Your task to perform on an android device: open app "DuckDuckGo Privacy Browser" Image 0: 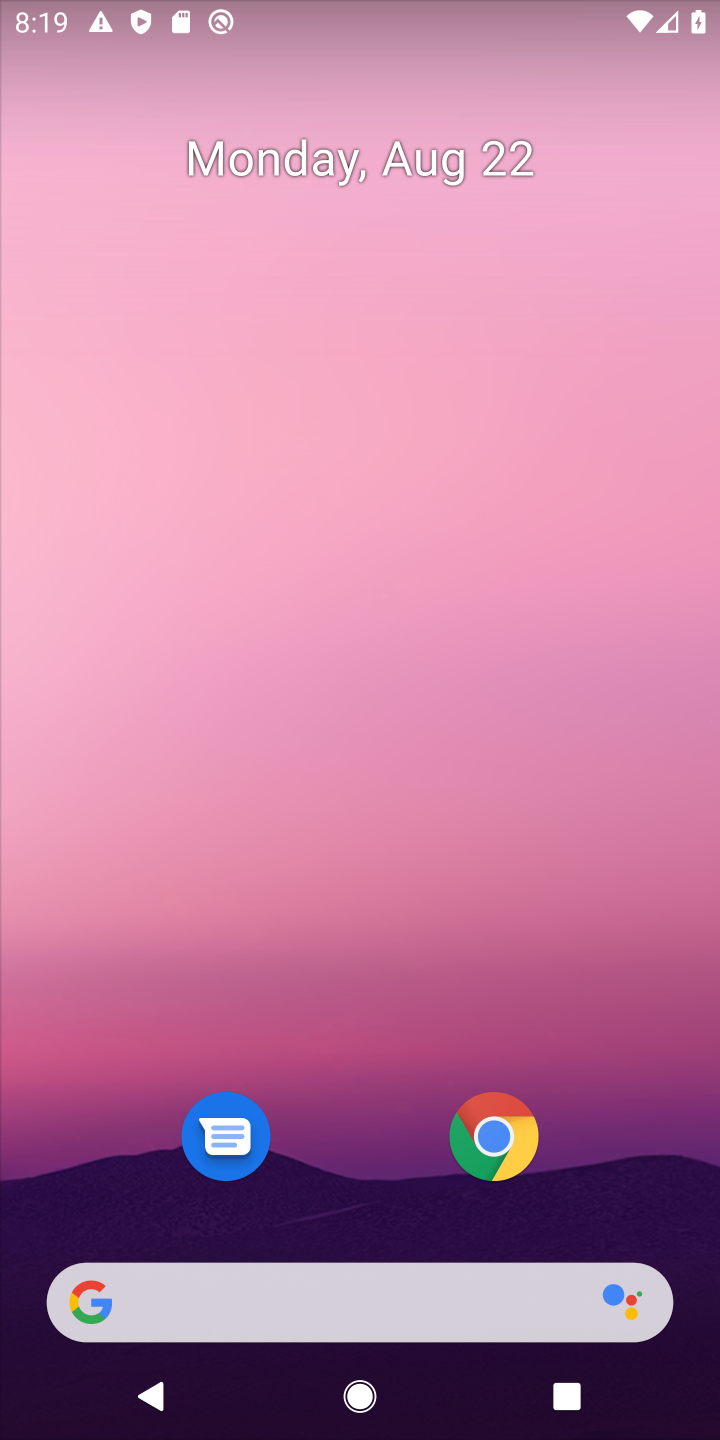
Step 0: drag from (381, 827) to (390, 201)
Your task to perform on an android device: open app "DuckDuckGo Privacy Browser" Image 1: 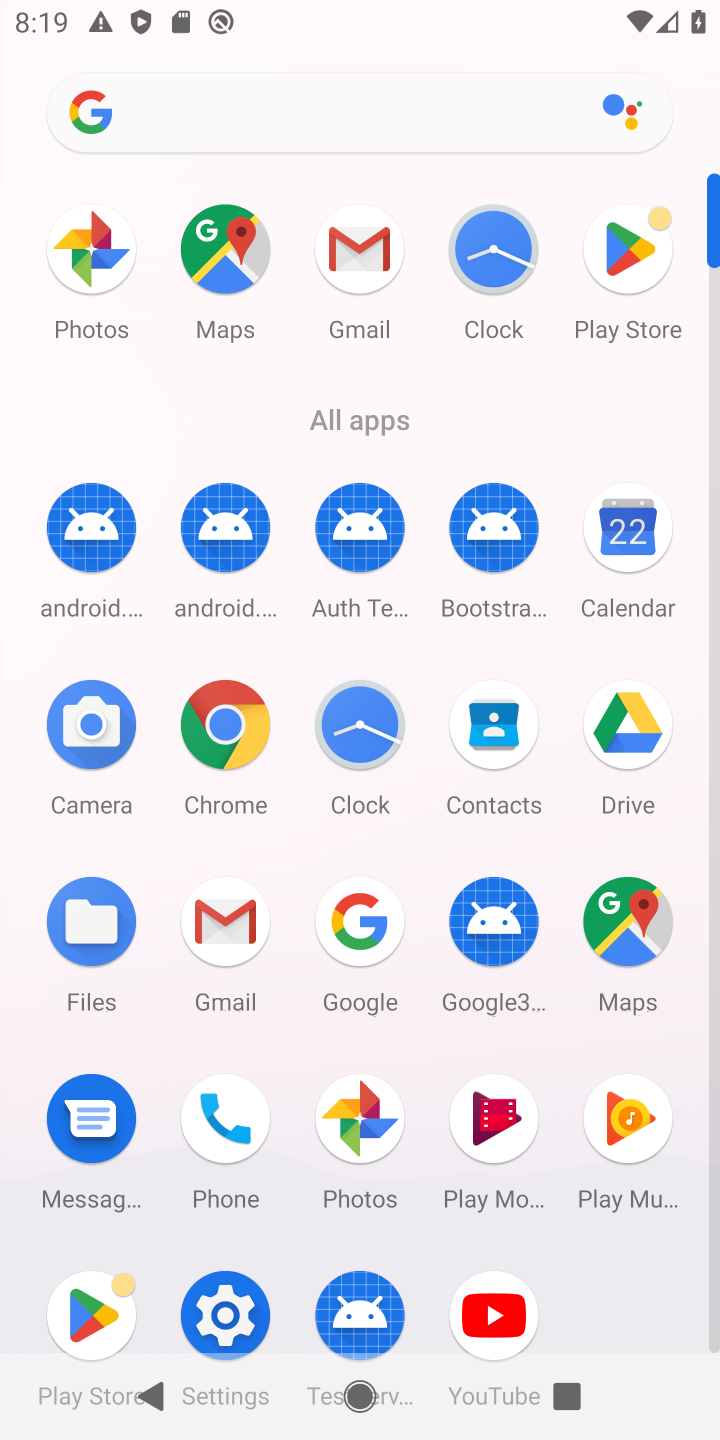
Step 1: click (627, 229)
Your task to perform on an android device: open app "DuckDuckGo Privacy Browser" Image 2: 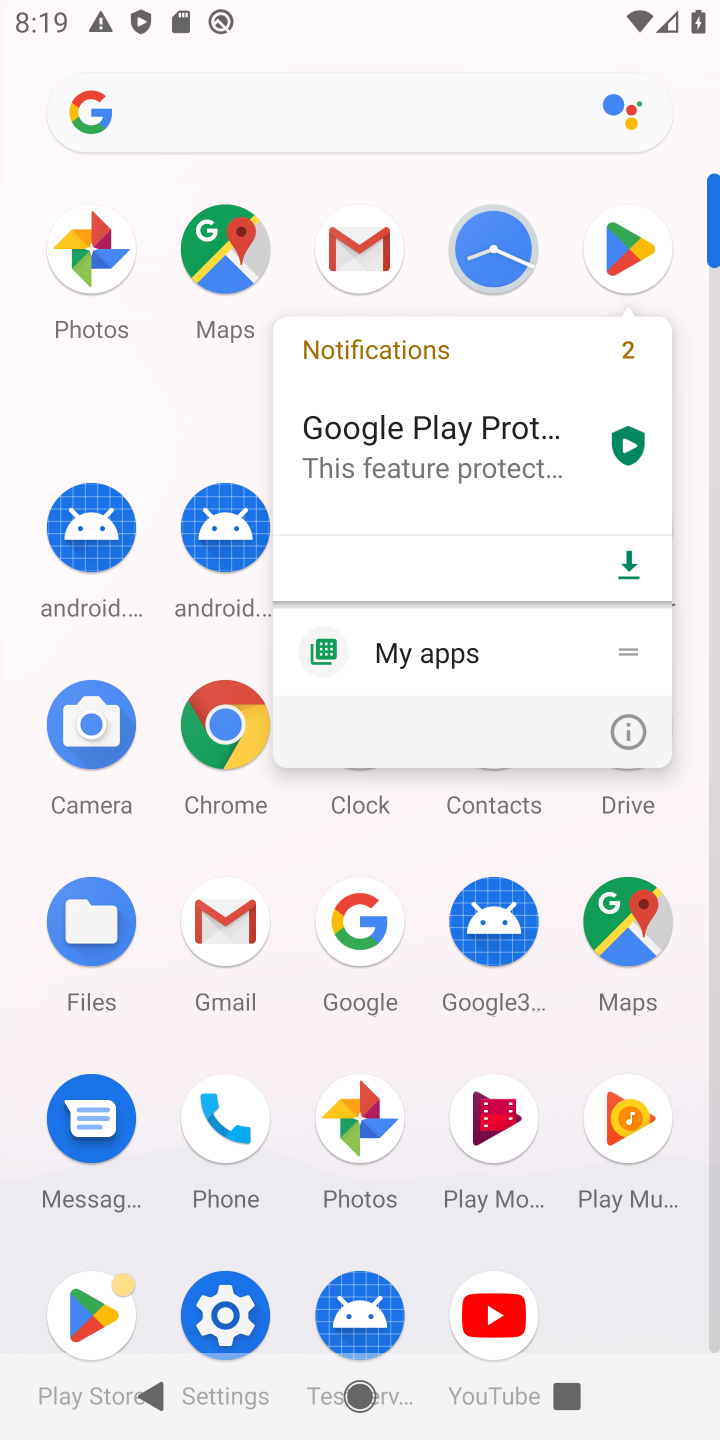
Step 2: click (609, 244)
Your task to perform on an android device: open app "DuckDuckGo Privacy Browser" Image 3: 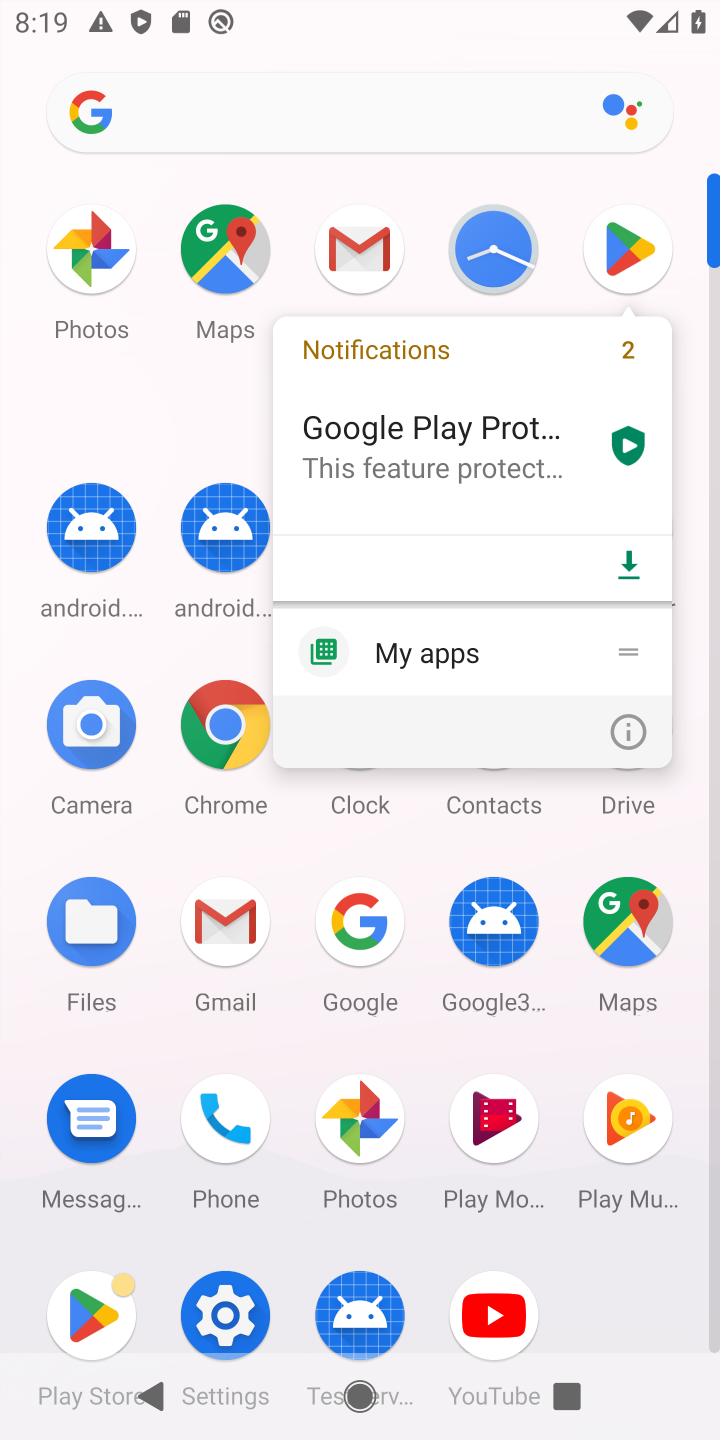
Step 3: click (644, 256)
Your task to perform on an android device: open app "DuckDuckGo Privacy Browser" Image 4: 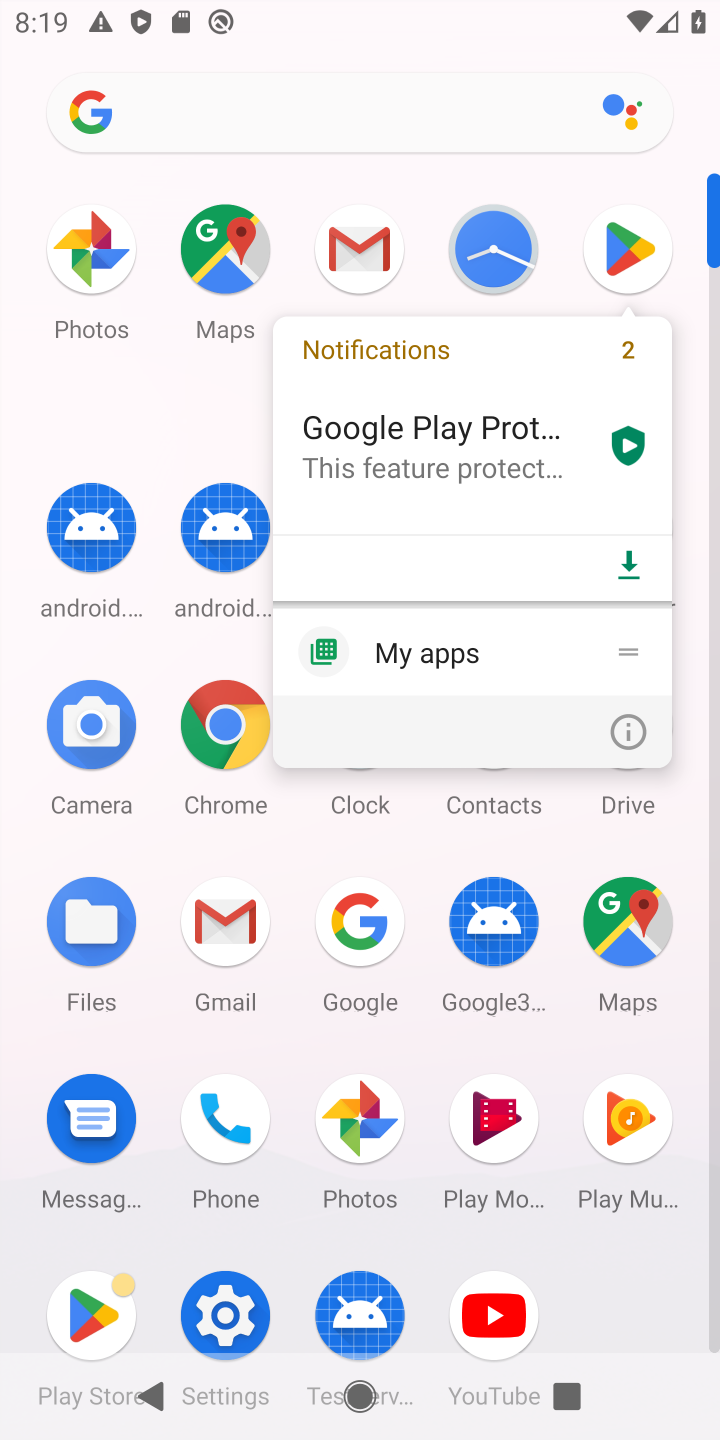
Step 4: click (637, 256)
Your task to perform on an android device: open app "DuckDuckGo Privacy Browser" Image 5: 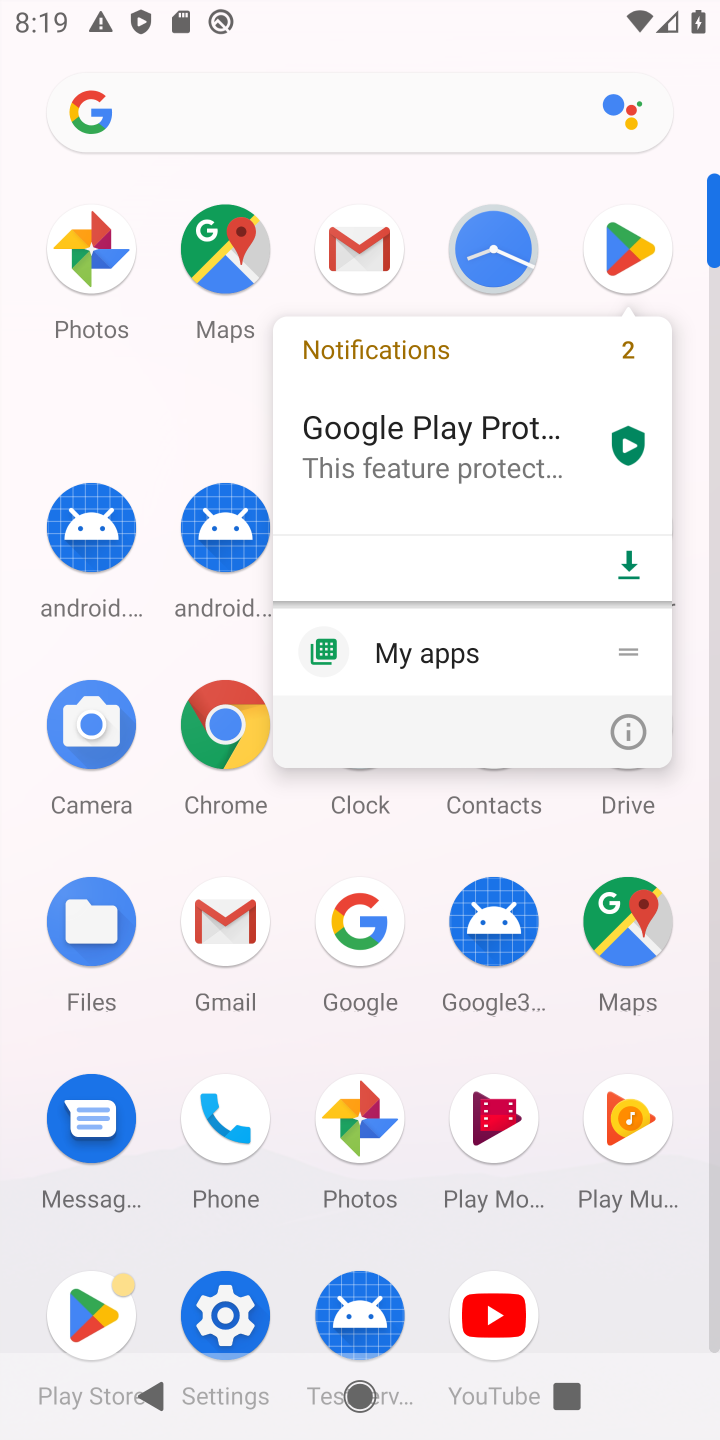
Step 5: click (637, 256)
Your task to perform on an android device: open app "DuckDuckGo Privacy Browser" Image 6: 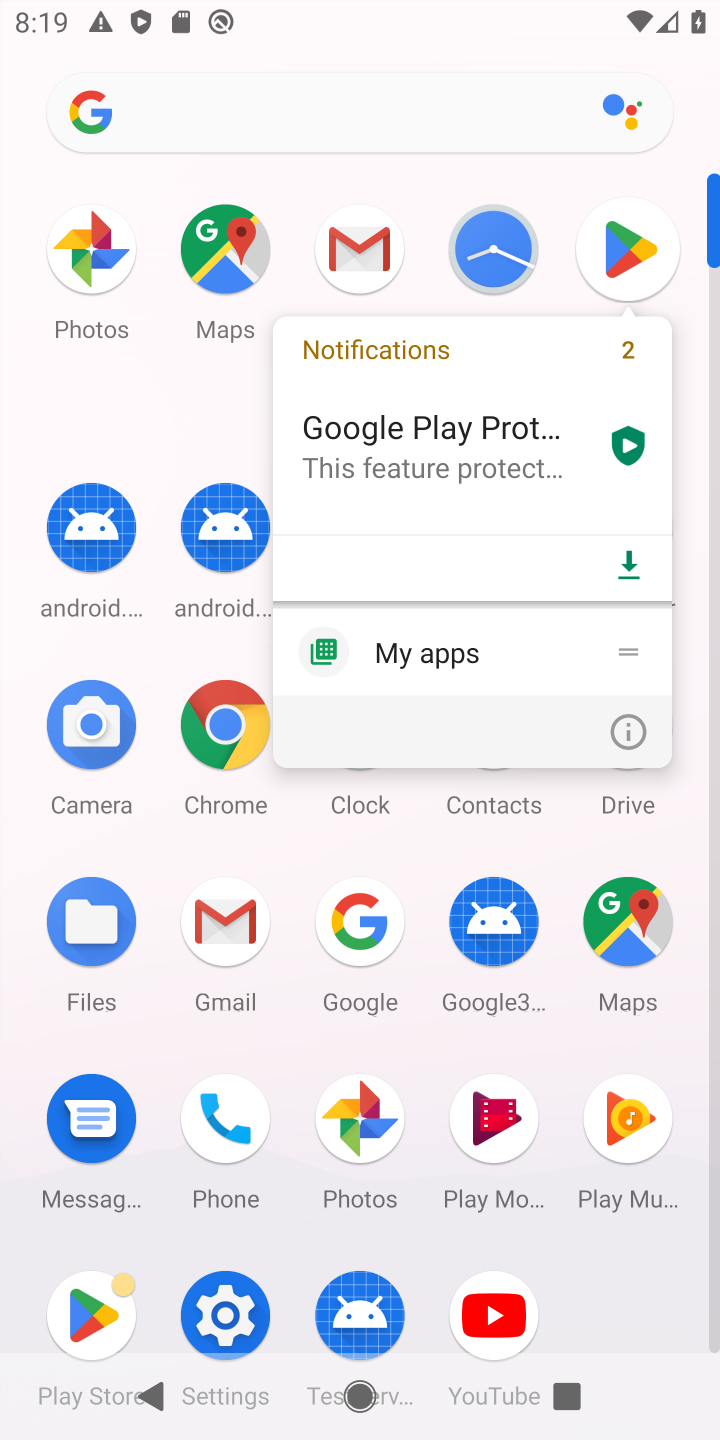
Step 6: click (637, 256)
Your task to perform on an android device: open app "DuckDuckGo Privacy Browser" Image 7: 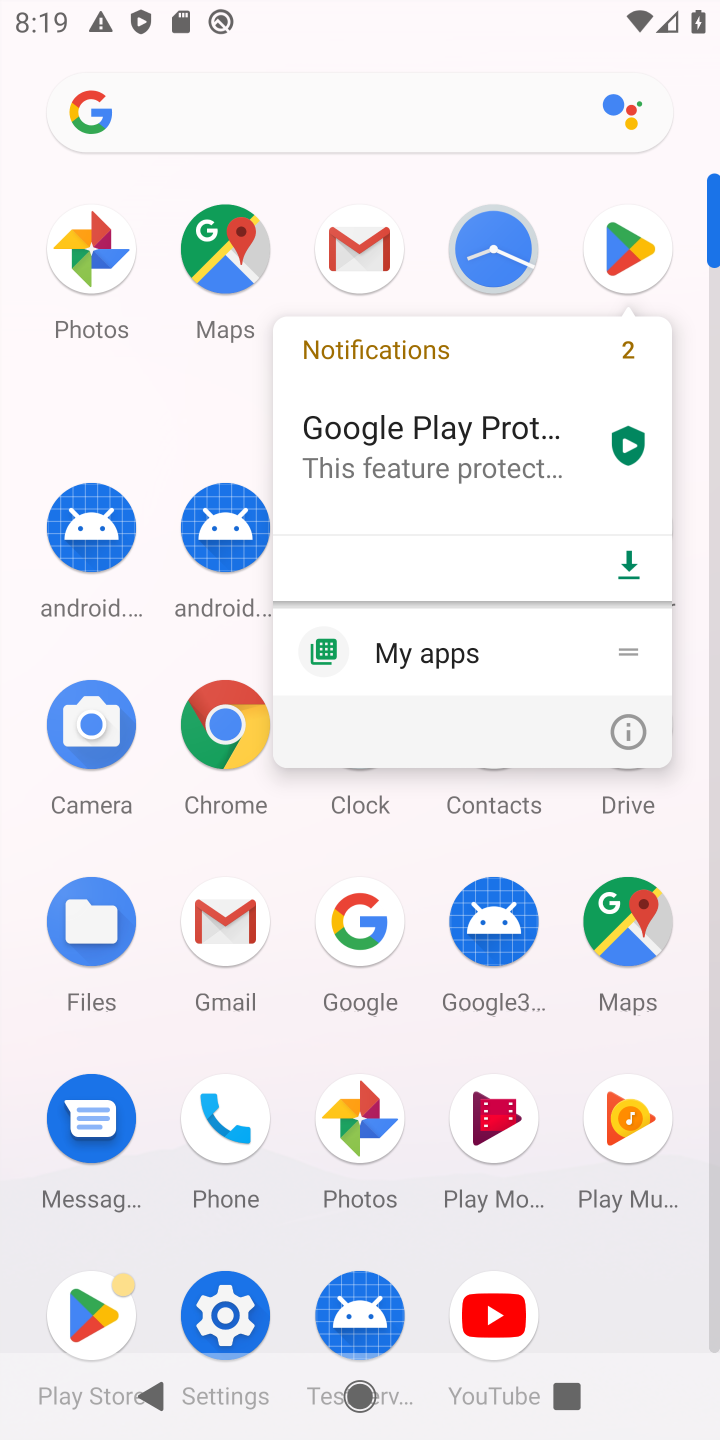
Step 7: click (610, 258)
Your task to perform on an android device: open app "DuckDuckGo Privacy Browser" Image 8: 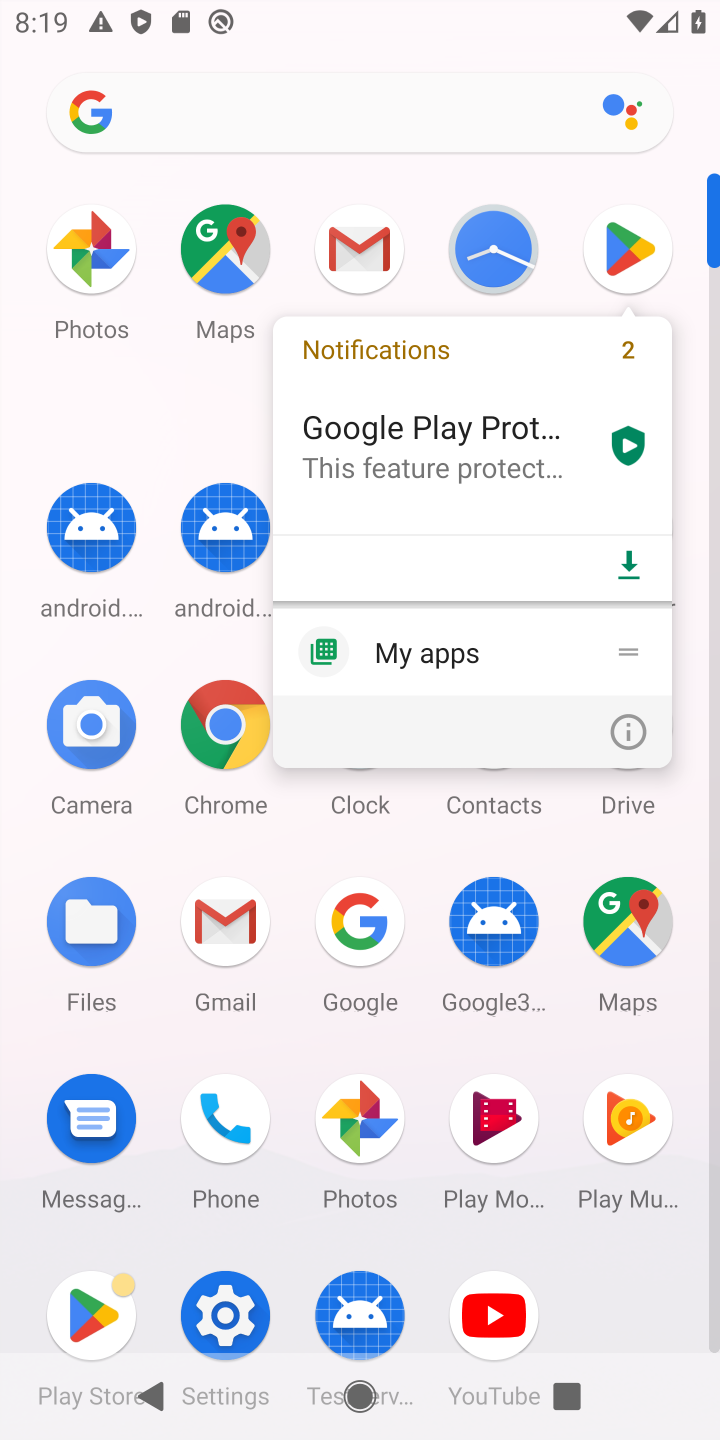
Step 8: click (610, 258)
Your task to perform on an android device: open app "DuckDuckGo Privacy Browser" Image 9: 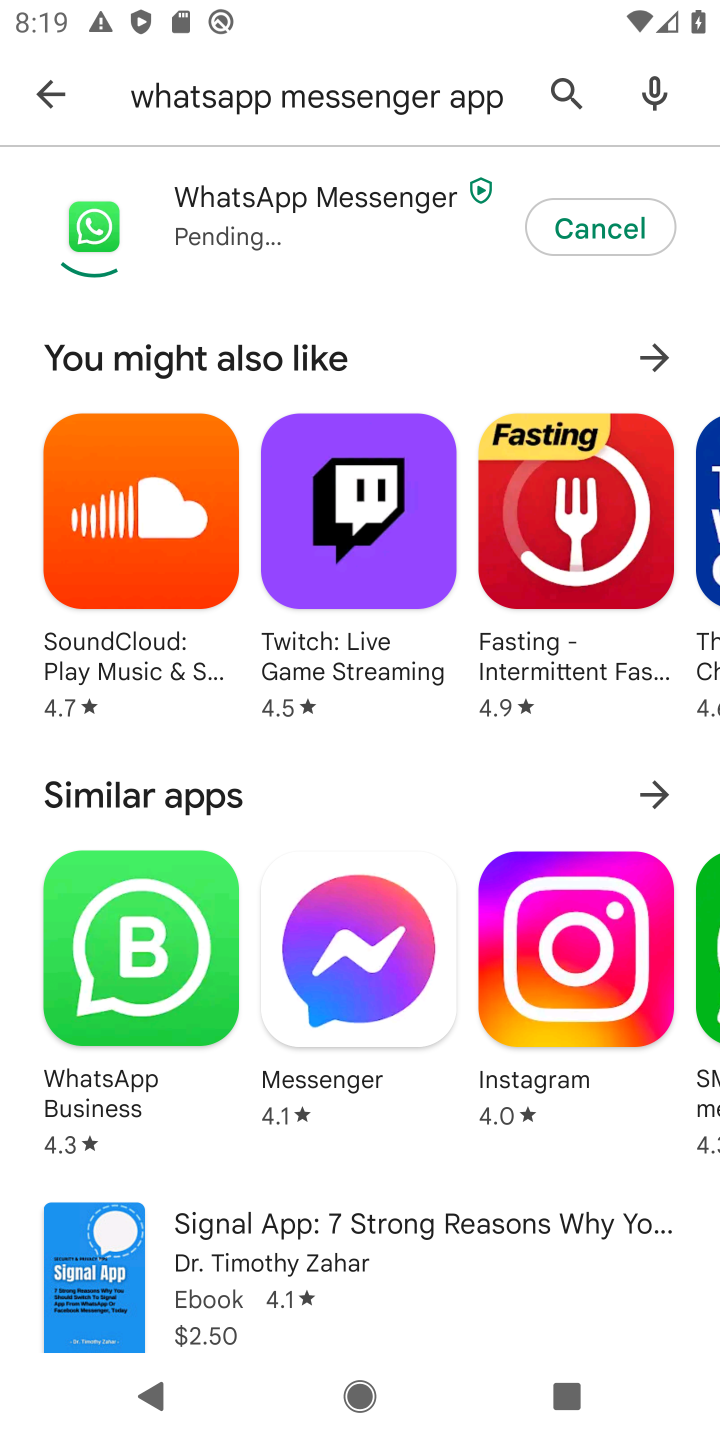
Step 9: click (79, 1309)
Your task to perform on an android device: open app "DuckDuckGo Privacy Browser" Image 10: 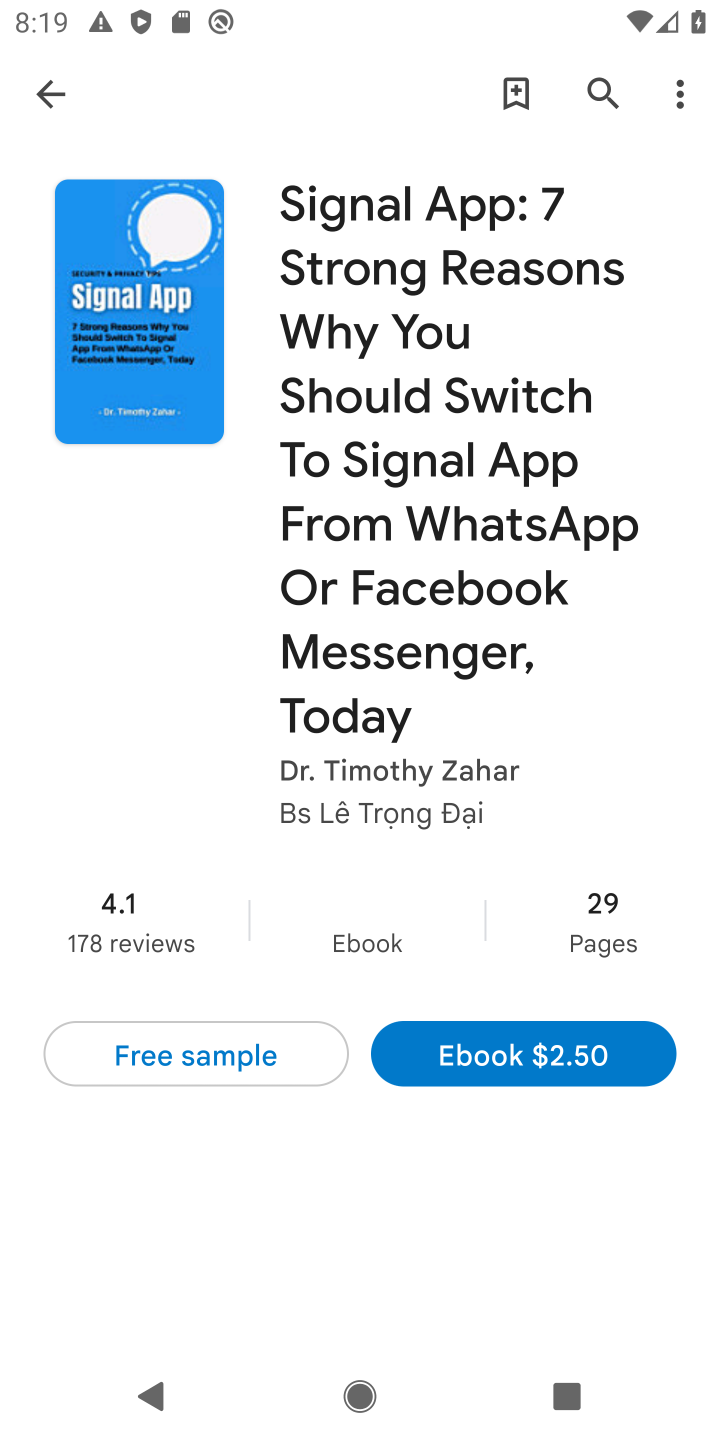
Step 10: press back button
Your task to perform on an android device: open app "DuckDuckGo Privacy Browser" Image 11: 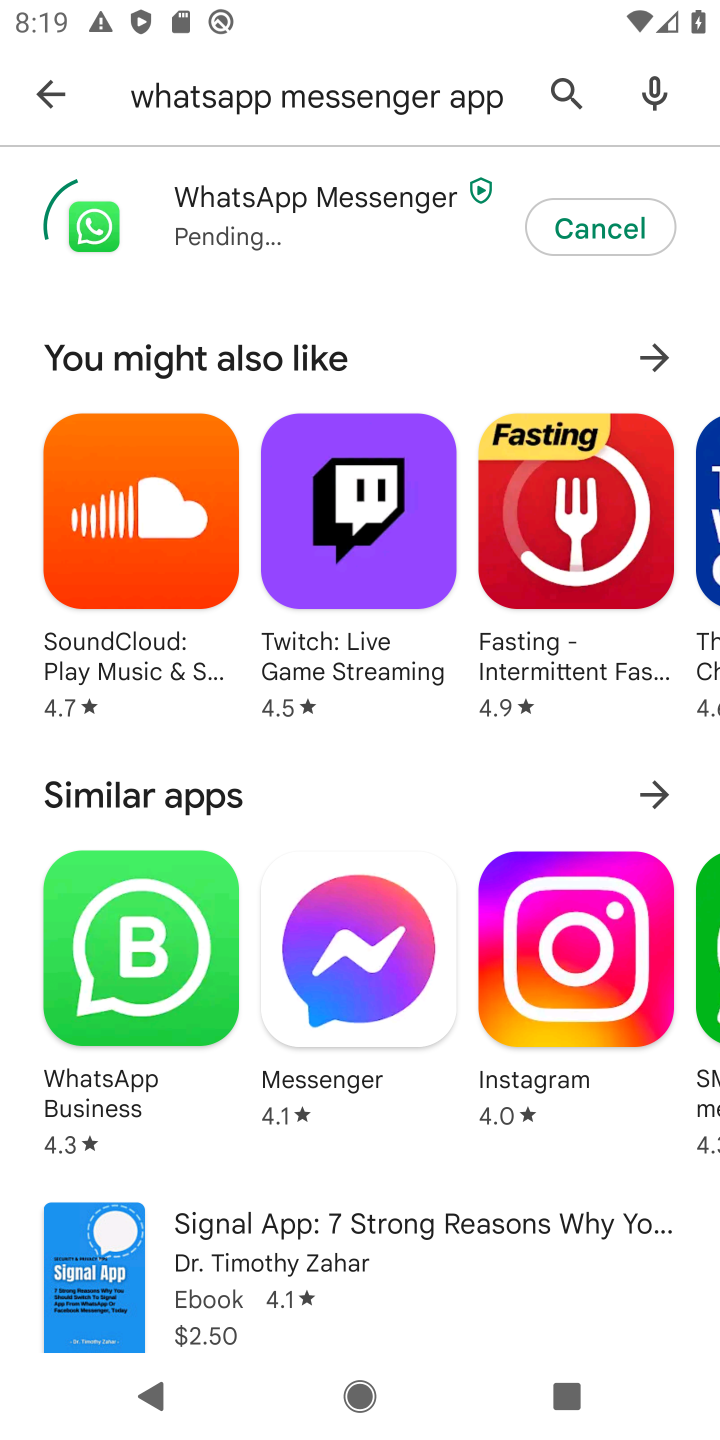
Step 11: click (41, 96)
Your task to perform on an android device: open app "DuckDuckGo Privacy Browser" Image 12: 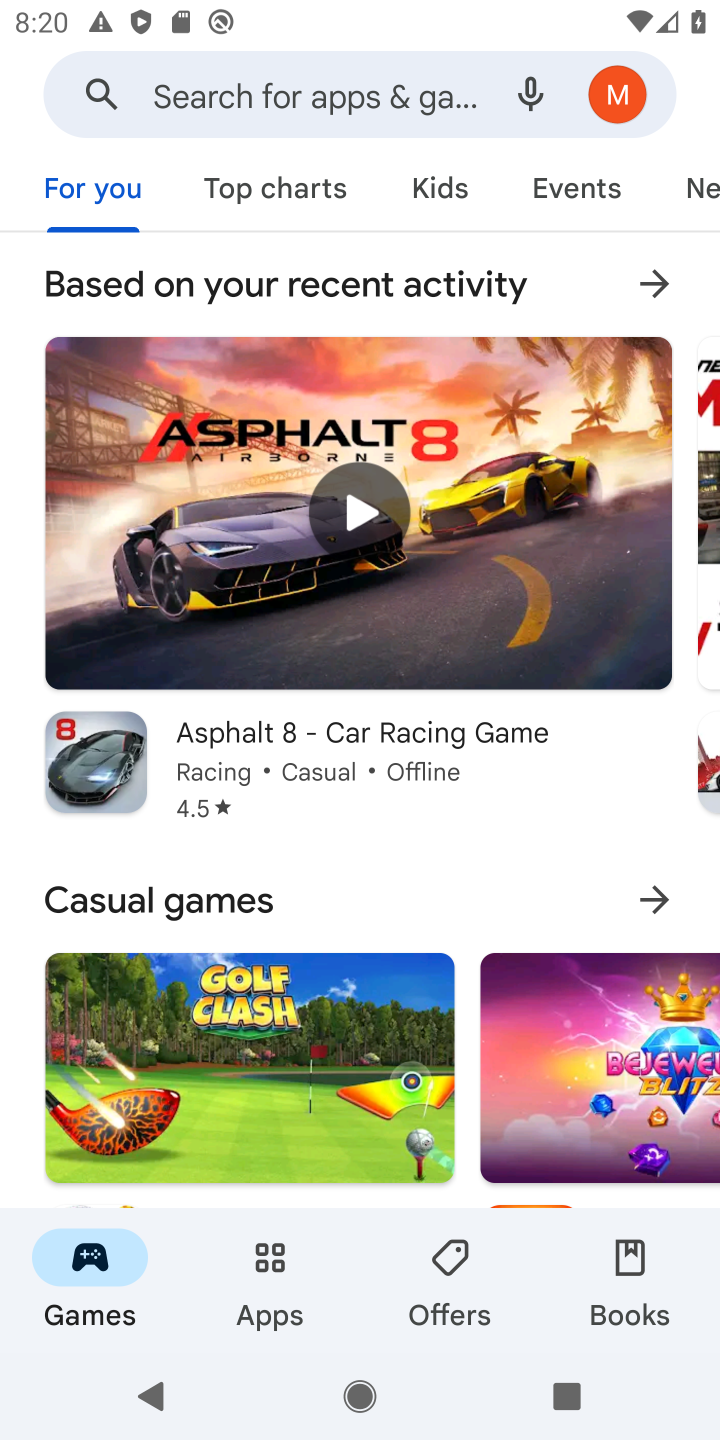
Step 12: click (194, 74)
Your task to perform on an android device: open app "DuckDuckGo Privacy Browser" Image 13: 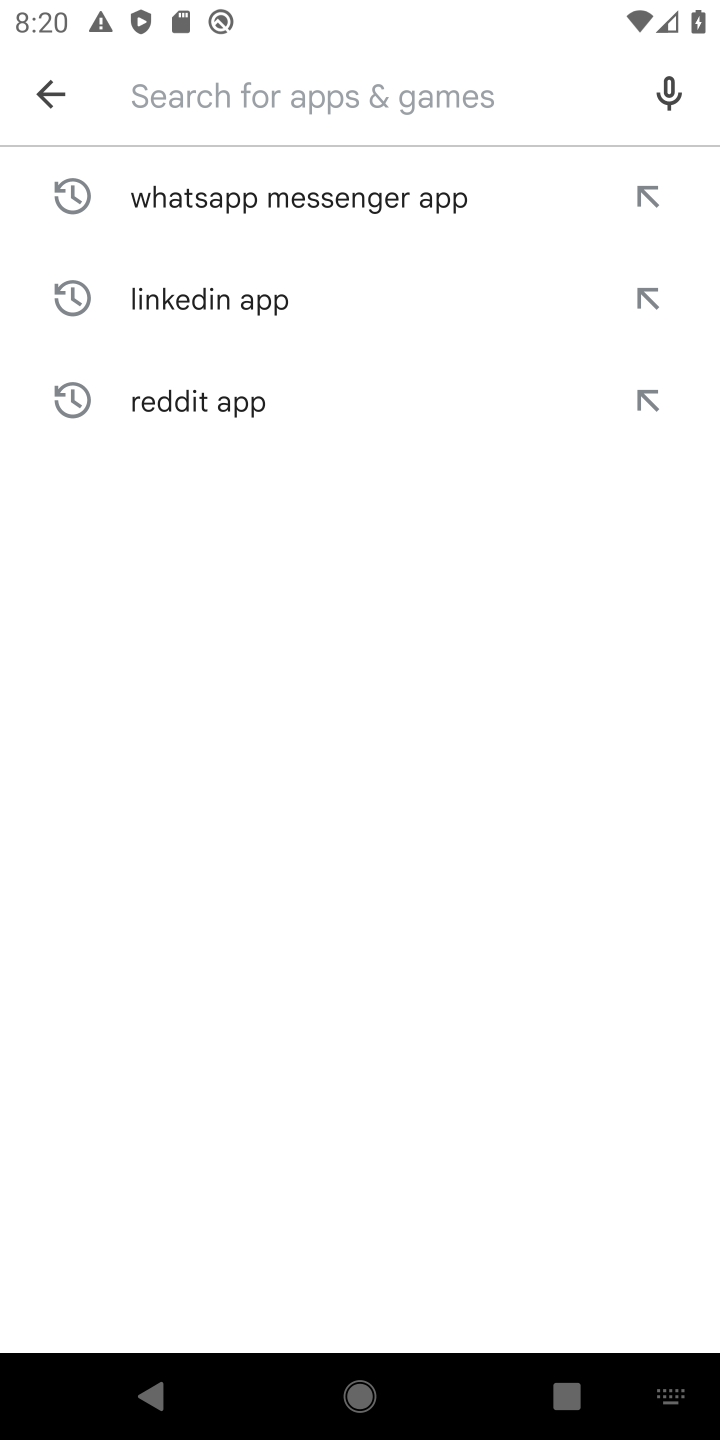
Step 13: type "DuckDuckGo Privacy Browser "
Your task to perform on an android device: open app "DuckDuckGo Privacy Browser" Image 14: 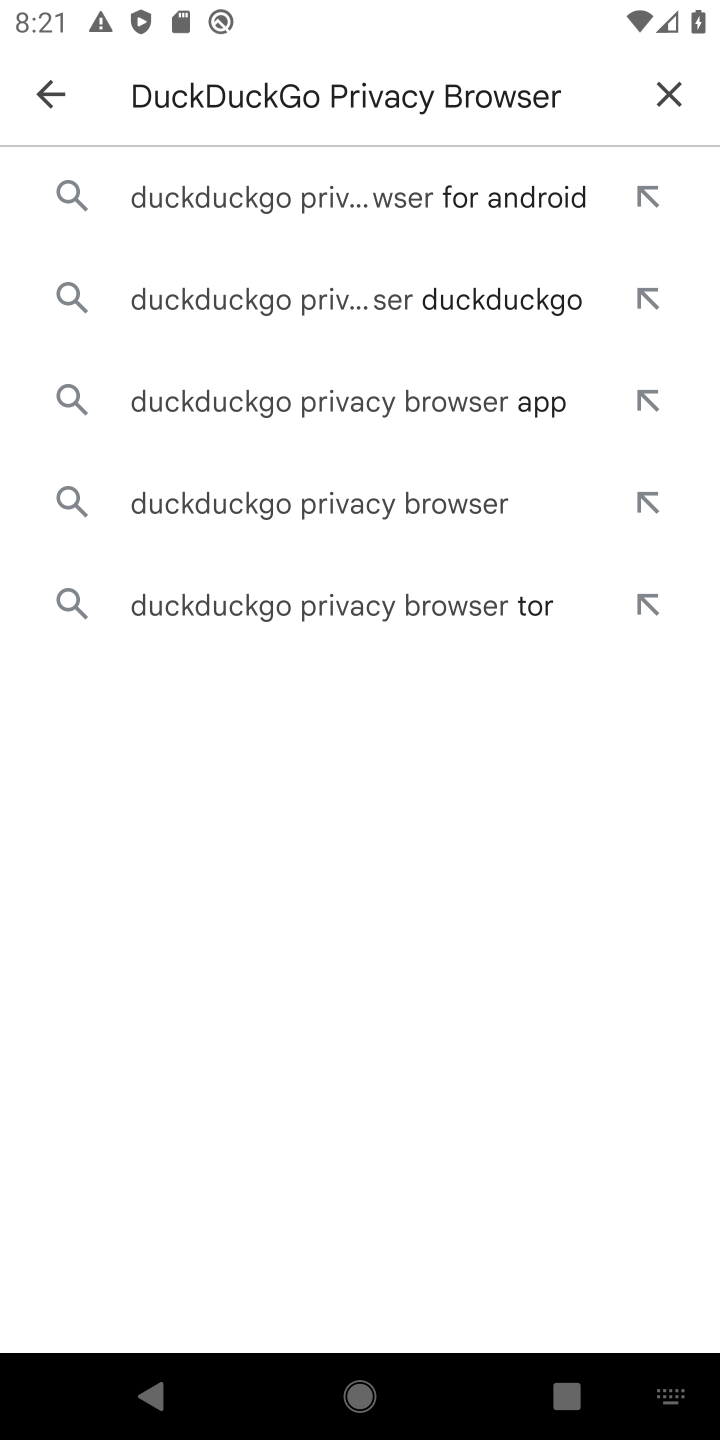
Step 14: click (361, 428)
Your task to perform on an android device: open app "DuckDuckGo Privacy Browser" Image 15: 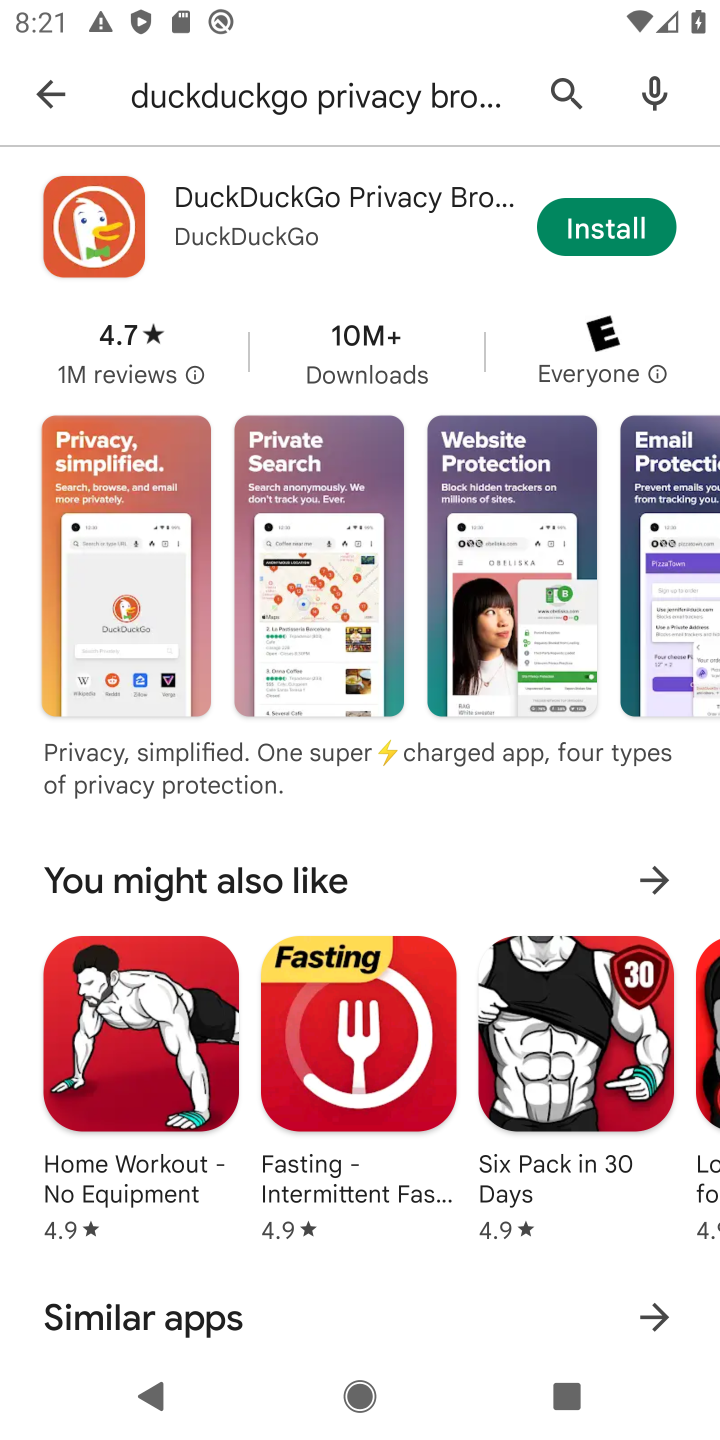
Step 15: click (601, 232)
Your task to perform on an android device: open app "DuckDuckGo Privacy Browser" Image 16: 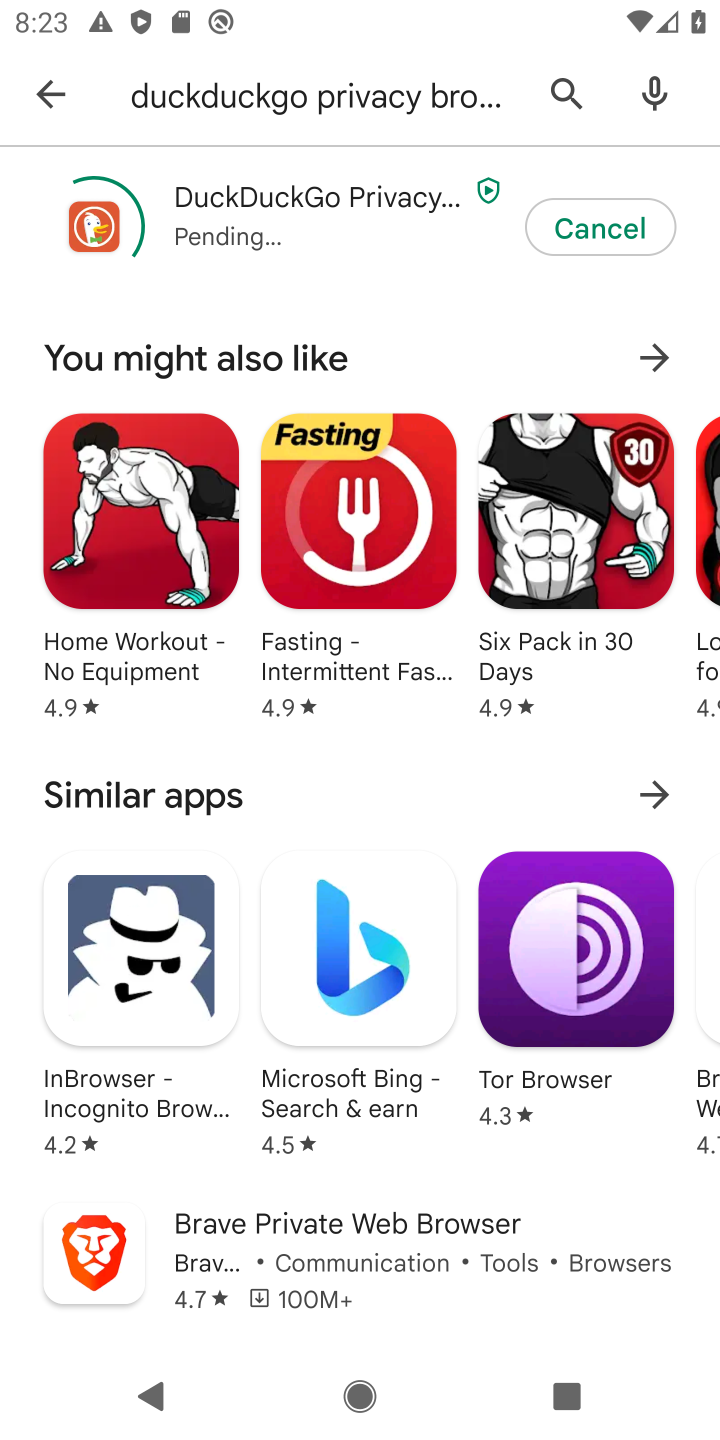
Step 16: task complete